Your task to perform on an android device: add a contact Image 0: 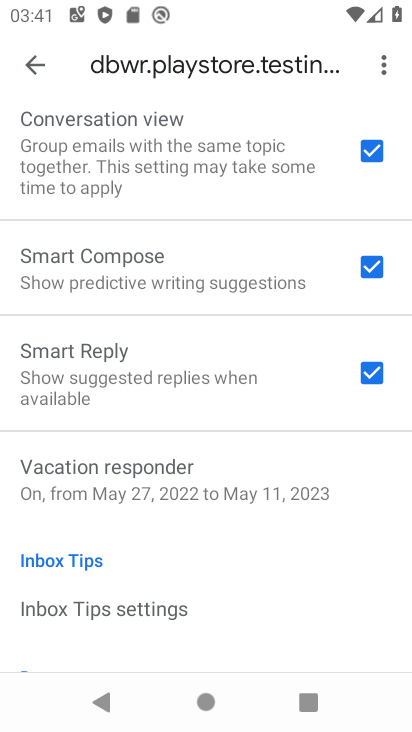
Step 0: press home button
Your task to perform on an android device: add a contact Image 1: 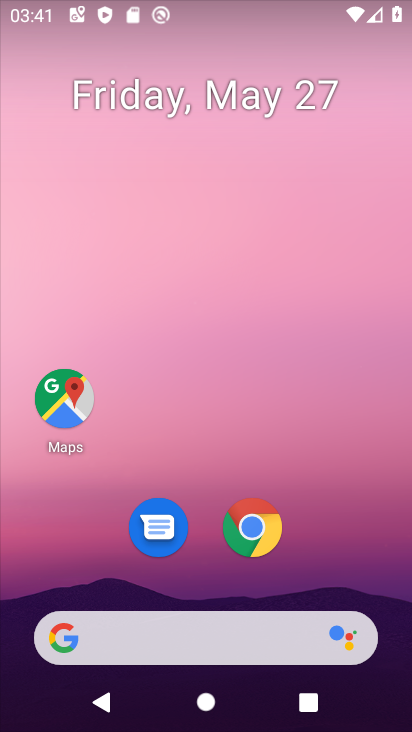
Step 1: drag from (363, 539) to (282, 31)
Your task to perform on an android device: add a contact Image 2: 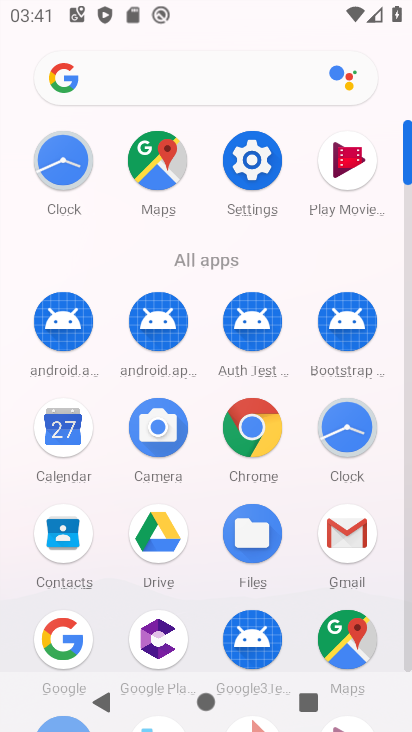
Step 2: drag from (300, 591) to (283, 328)
Your task to perform on an android device: add a contact Image 3: 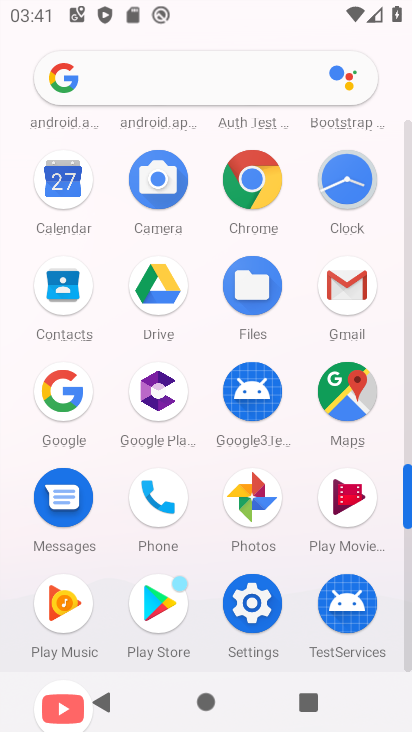
Step 3: click (85, 278)
Your task to perform on an android device: add a contact Image 4: 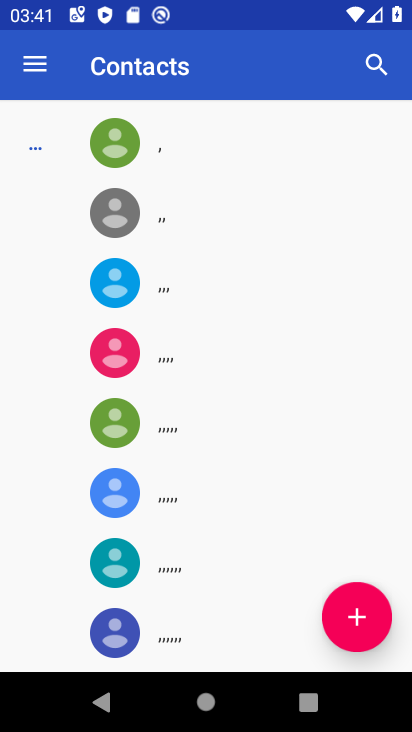
Step 4: click (345, 613)
Your task to perform on an android device: add a contact Image 5: 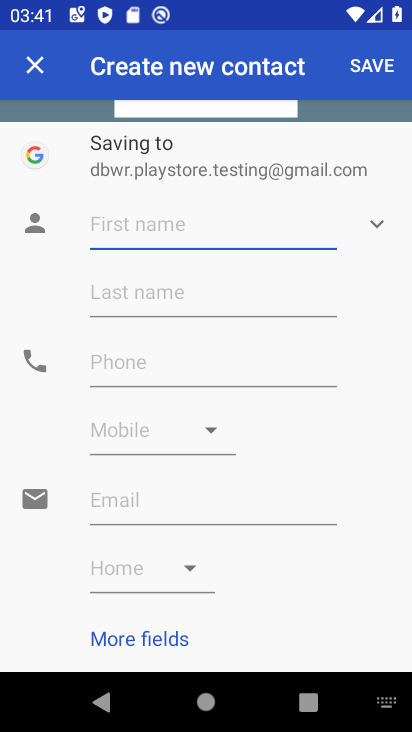
Step 5: type "szzzz"
Your task to perform on an android device: add a contact Image 6: 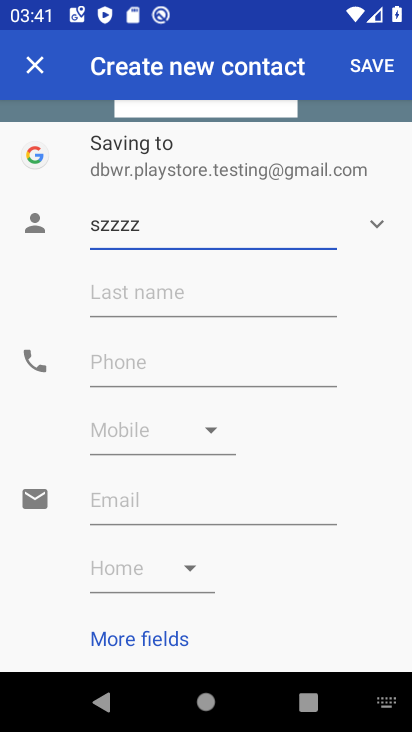
Step 6: click (90, 364)
Your task to perform on an android device: add a contact Image 7: 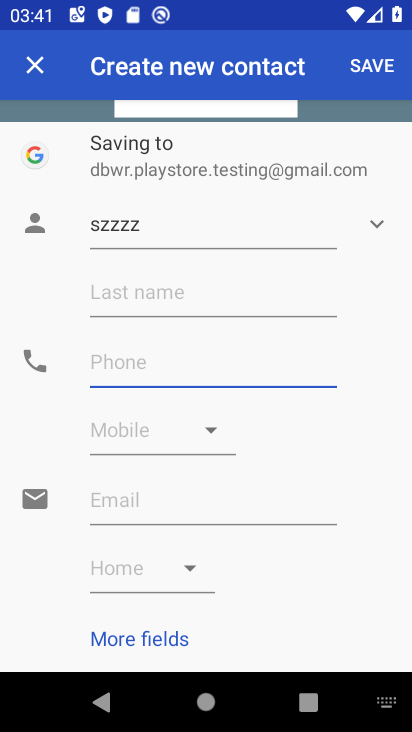
Step 7: click (90, 364)
Your task to perform on an android device: add a contact Image 8: 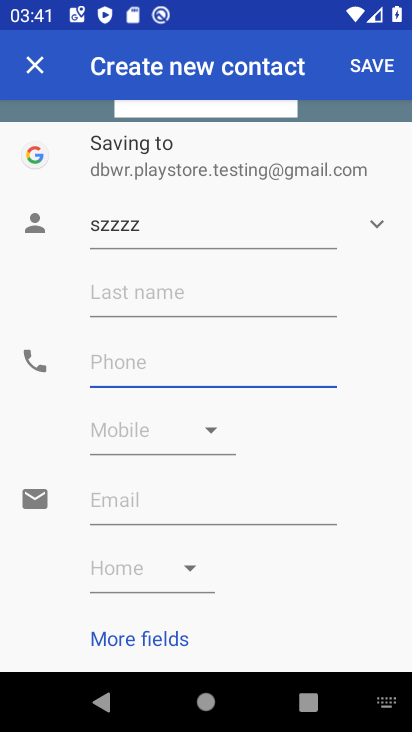
Step 8: click (90, 364)
Your task to perform on an android device: add a contact Image 9: 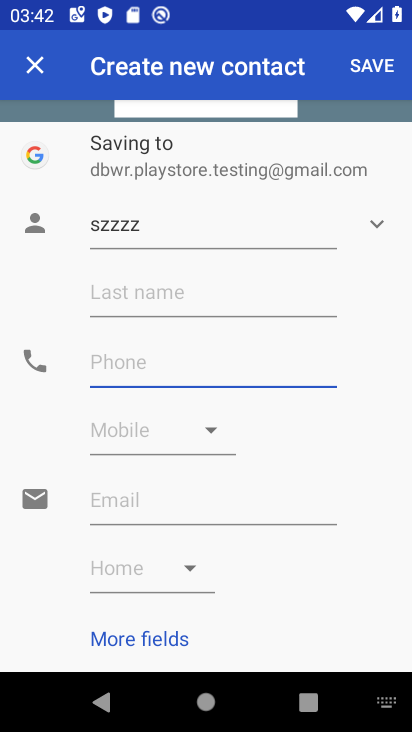
Step 9: type "11111111122222222"
Your task to perform on an android device: add a contact Image 10: 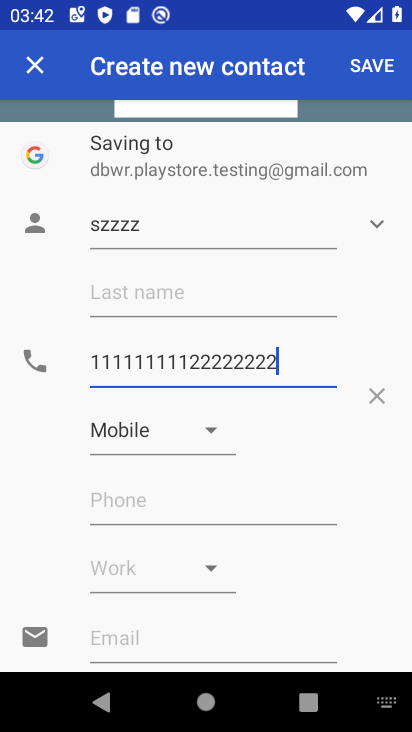
Step 10: click (384, 70)
Your task to perform on an android device: add a contact Image 11: 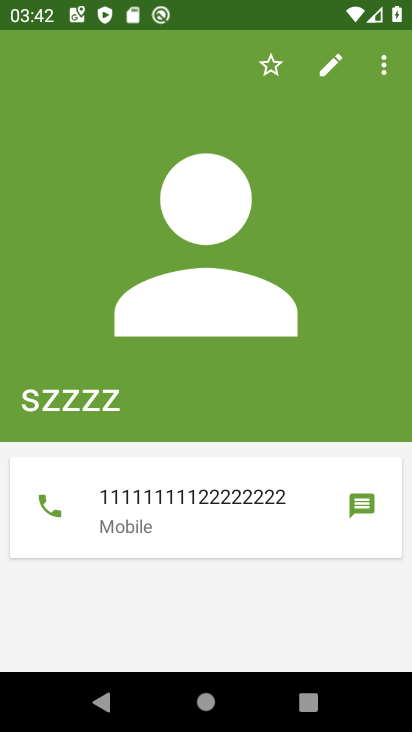
Step 11: task complete